Your task to perform on an android device: turn smart compose on in the gmail app Image 0: 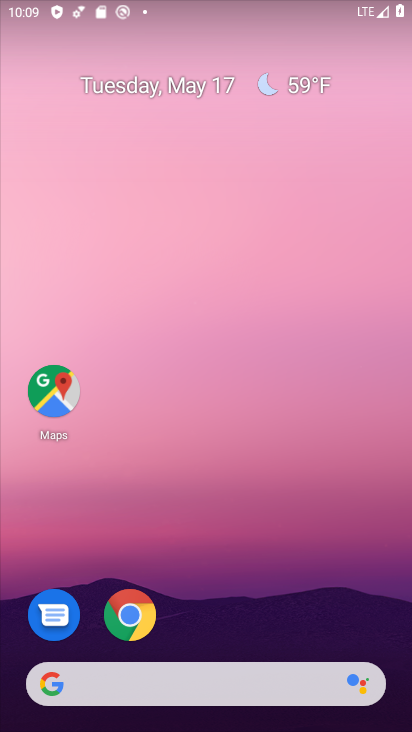
Step 0: press home button
Your task to perform on an android device: turn smart compose on in the gmail app Image 1: 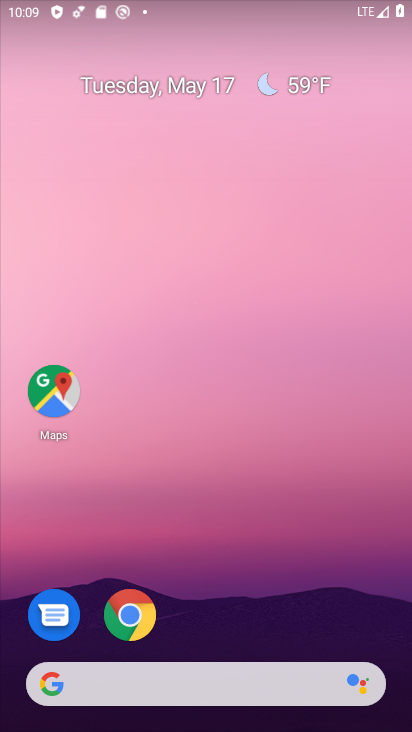
Step 1: drag from (216, 631) to (312, 256)
Your task to perform on an android device: turn smart compose on in the gmail app Image 2: 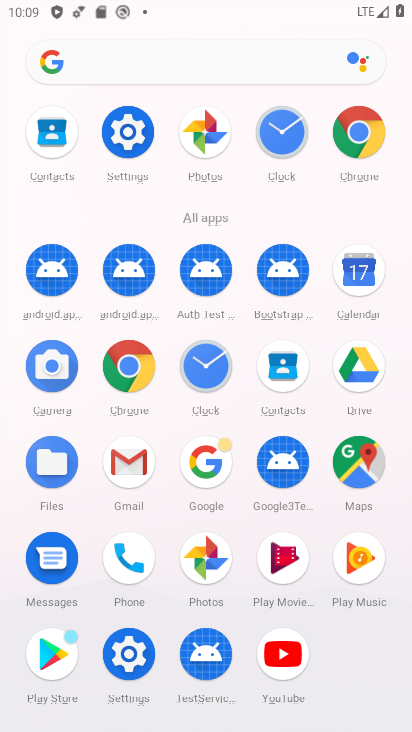
Step 2: click (129, 463)
Your task to perform on an android device: turn smart compose on in the gmail app Image 3: 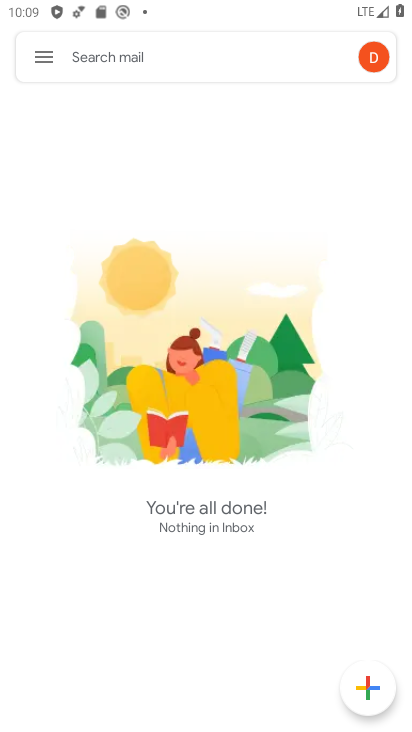
Step 3: click (50, 56)
Your task to perform on an android device: turn smart compose on in the gmail app Image 4: 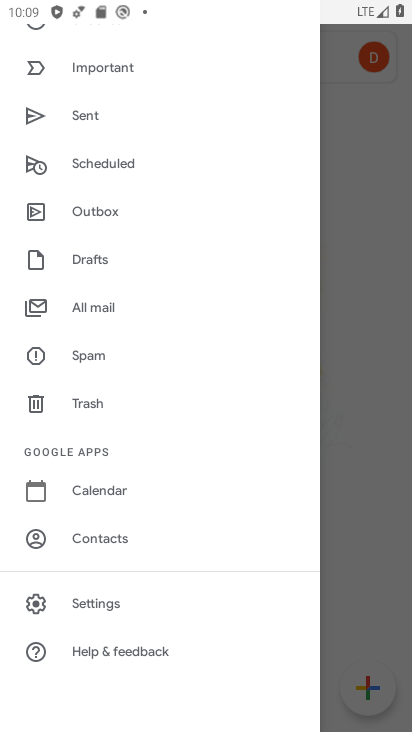
Step 4: click (103, 603)
Your task to perform on an android device: turn smart compose on in the gmail app Image 5: 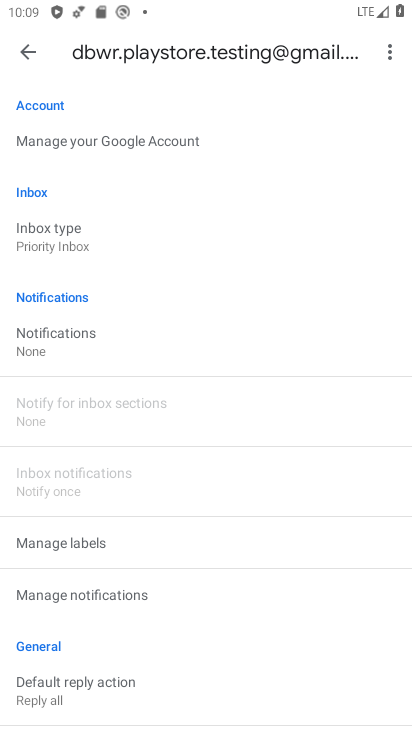
Step 5: task complete